Your task to perform on an android device: Go to location settings Image 0: 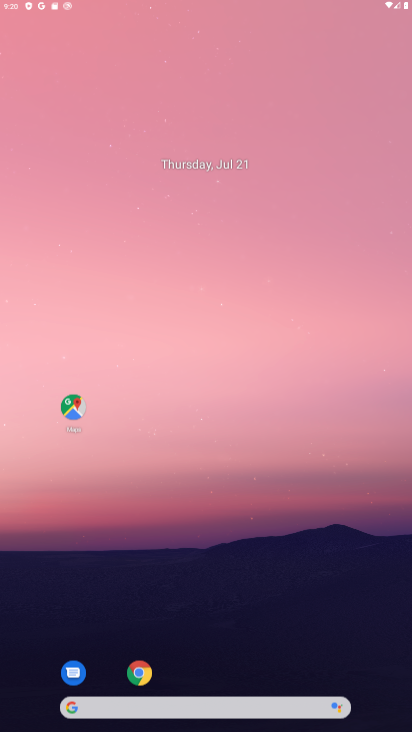
Step 0: press home button
Your task to perform on an android device: Go to location settings Image 1: 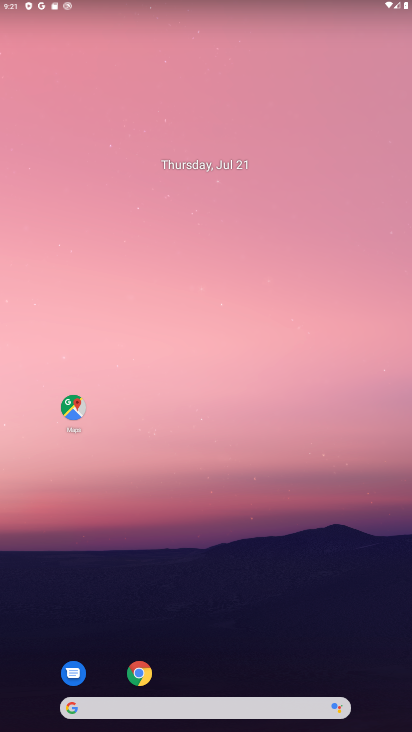
Step 1: drag from (233, 680) to (231, 113)
Your task to perform on an android device: Go to location settings Image 2: 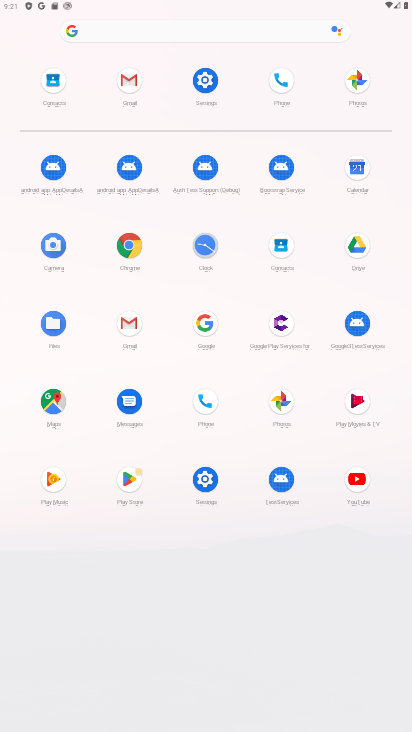
Step 2: click (205, 76)
Your task to perform on an android device: Go to location settings Image 3: 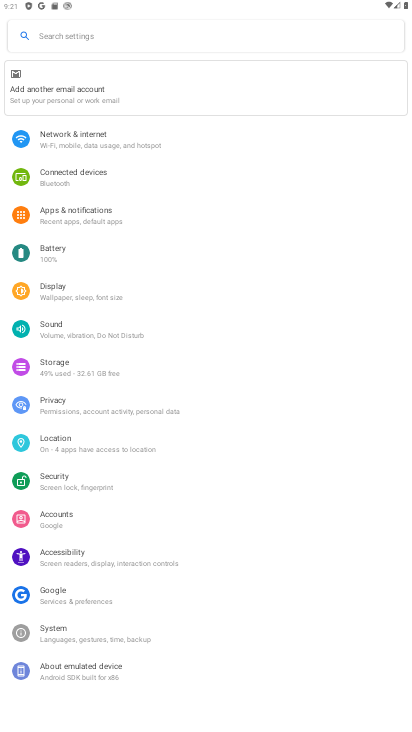
Step 3: click (79, 439)
Your task to perform on an android device: Go to location settings Image 4: 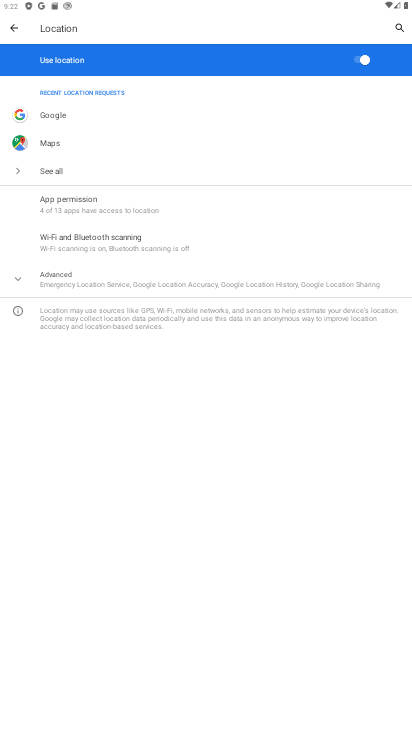
Step 4: click (17, 275)
Your task to perform on an android device: Go to location settings Image 5: 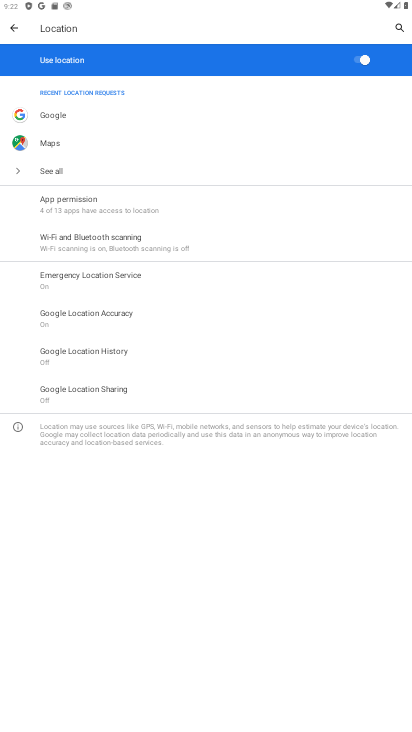
Step 5: task complete